Your task to perform on an android device: turn off priority inbox in the gmail app Image 0: 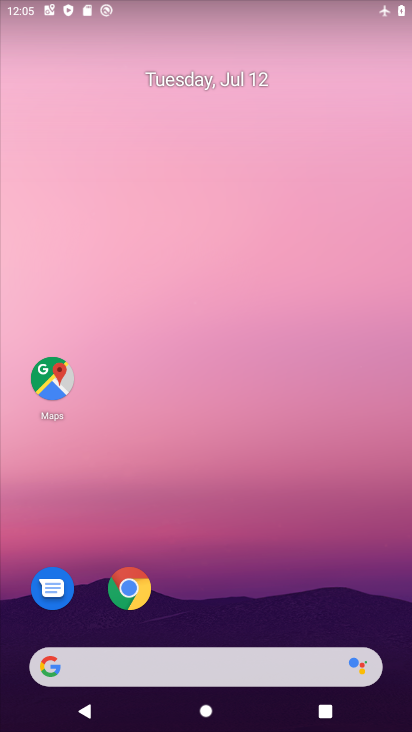
Step 0: drag from (255, 596) to (250, 103)
Your task to perform on an android device: turn off priority inbox in the gmail app Image 1: 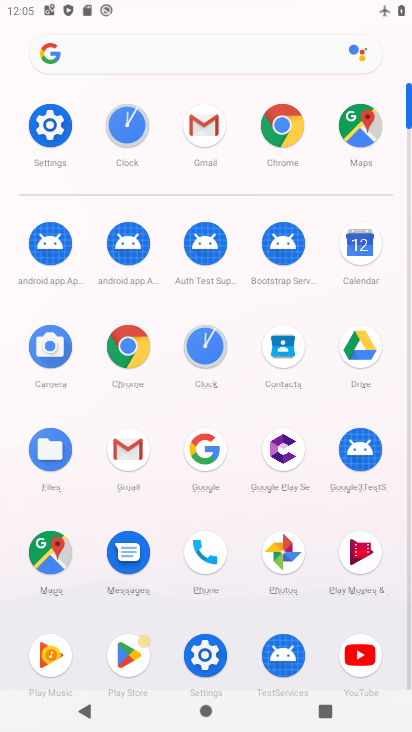
Step 1: click (201, 132)
Your task to perform on an android device: turn off priority inbox in the gmail app Image 2: 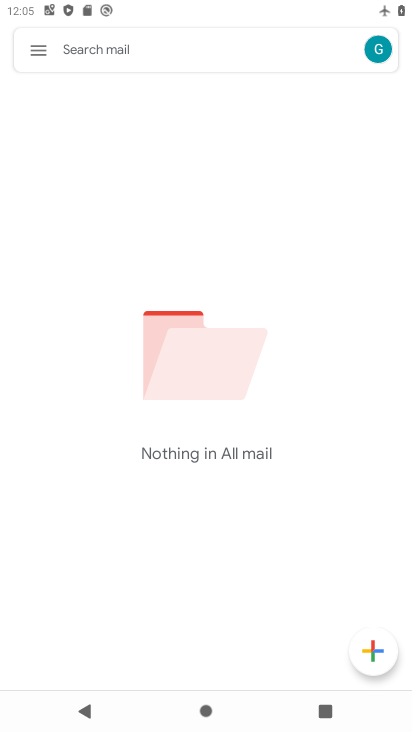
Step 2: click (41, 48)
Your task to perform on an android device: turn off priority inbox in the gmail app Image 3: 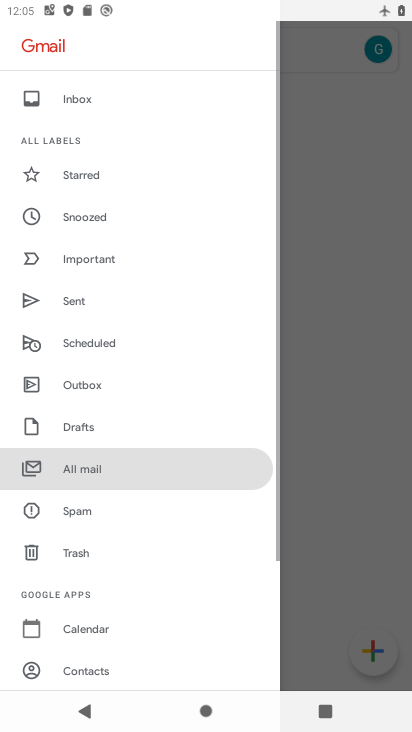
Step 3: drag from (112, 612) to (170, 155)
Your task to perform on an android device: turn off priority inbox in the gmail app Image 4: 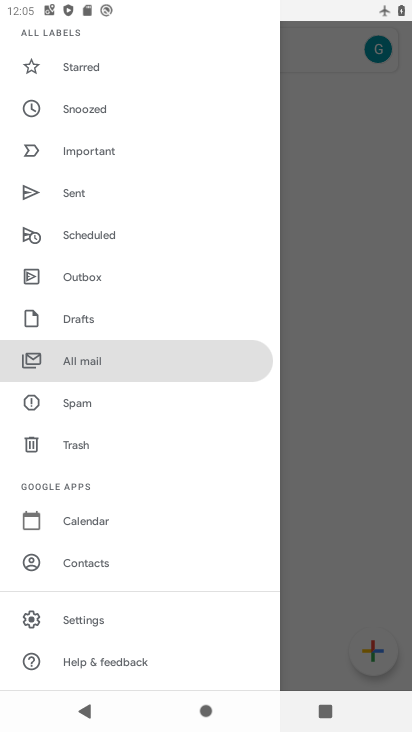
Step 4: click (99, 615)
Your task to perform on an android device: turn off priority inbox in the gmail app Image 5: 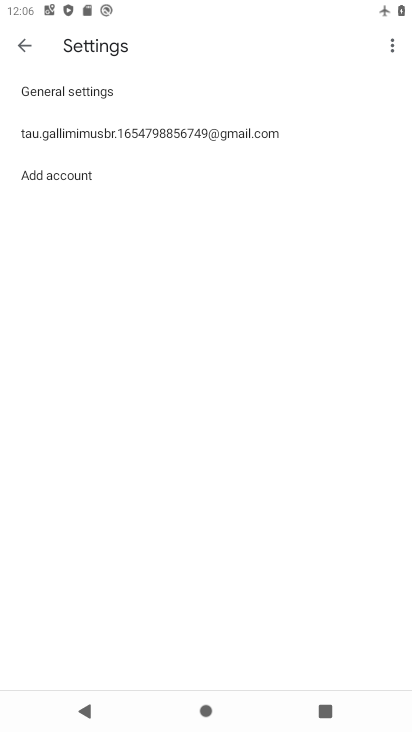
Step 5: click (180, 131)
Your task to perform on an android device: turn off priority inbox in the gmail app Image 6: 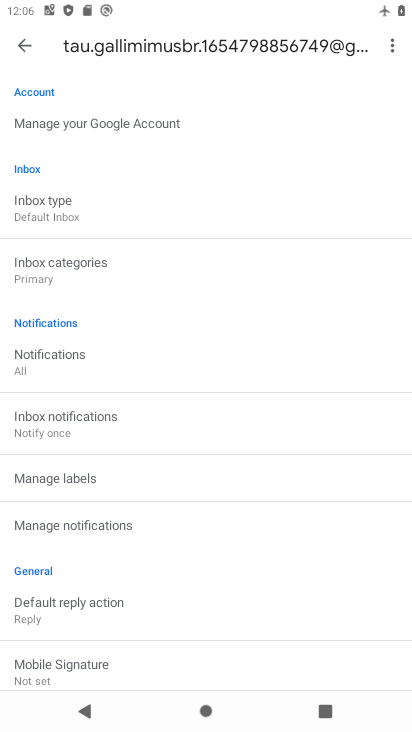
Step 6: click (79, 203)
Your task to perform on an android device: turn off priority inbox in the gmail app Image 7: 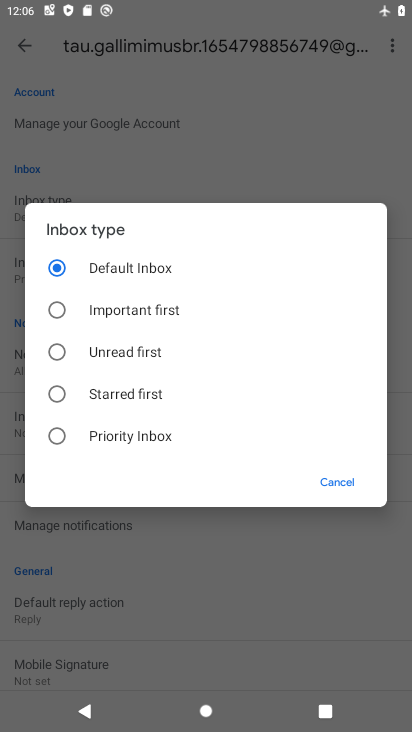
Step 7: task complete